Your task to perform on an android device: open device folders in google photos Image 0: 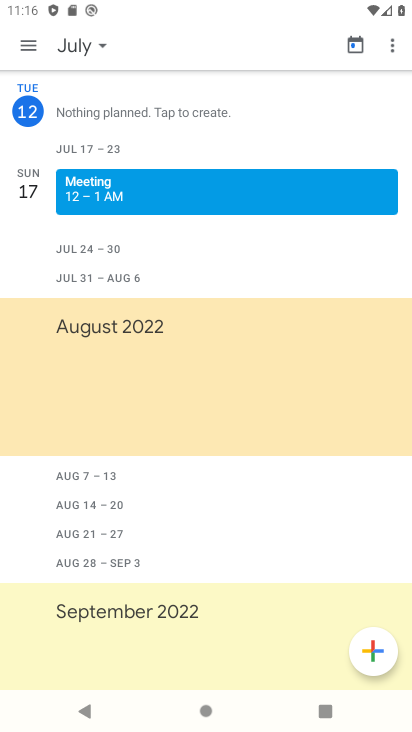
Step 0: press home button
Your task to perform on an android device: open device folders in google photos Image 1: 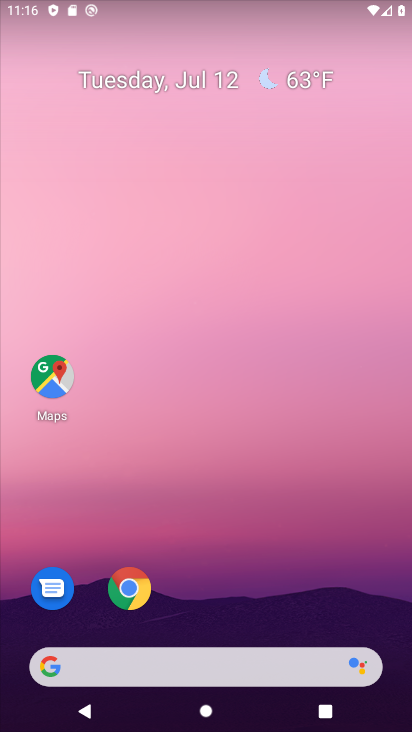
Step 1: drag from (20, 709) to (392, 277)
Your task to perform on an android device: open device folders in google photos Image 2: 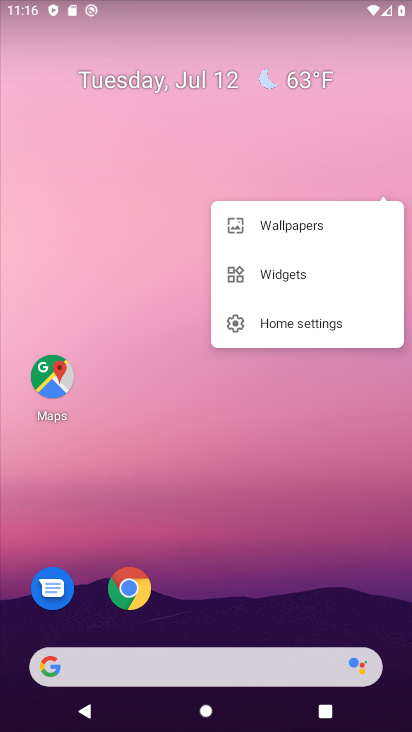
Step 2: drag from (33, 700) to (218, 34)
Your task to perform on an android device: open device folders in google photos Image 3: 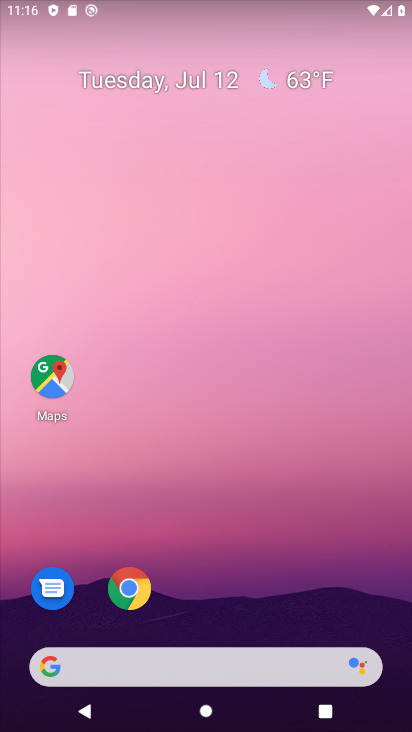
Step 3: drag from (76, 571) to (232, 12)
Your task to perform on an android device: open device folders in google photos Image 4: 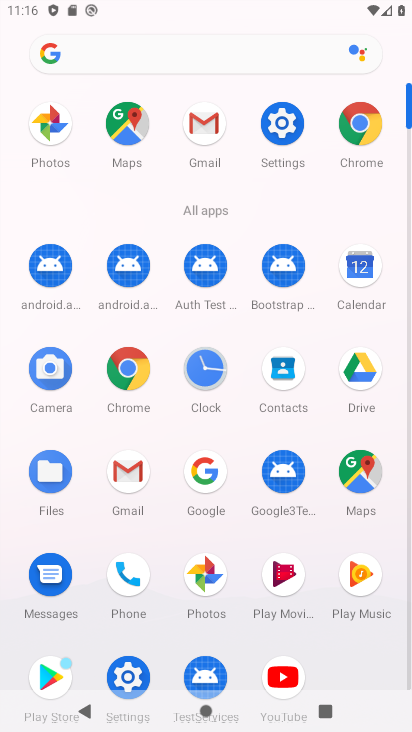
Step 4: click (211, 585)
Your task to perform on an android device: open device folders in google photos Image 5: 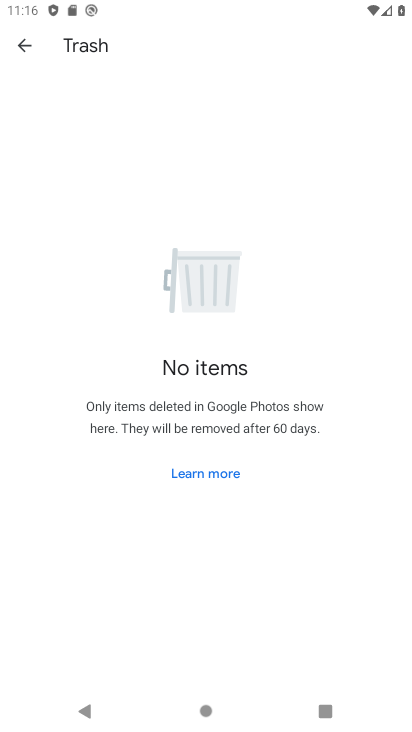
Step 5: click (24, 51)
Your task to perform on an android device: open device folders in google photos Image 6: 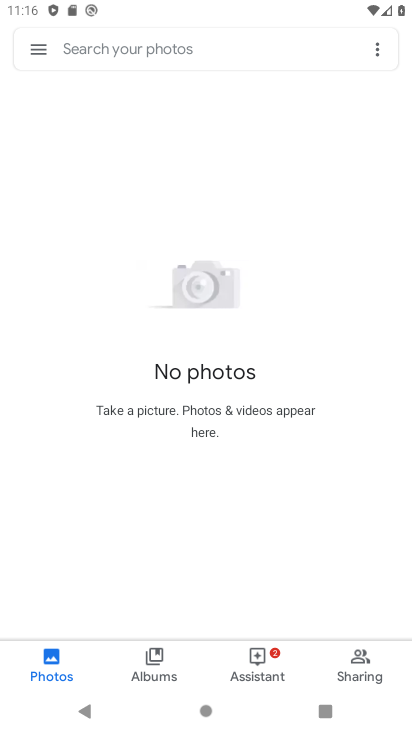
Step 6: click (31, 49)
Your task to perform on an android device: open device folders in google photos Image 7: 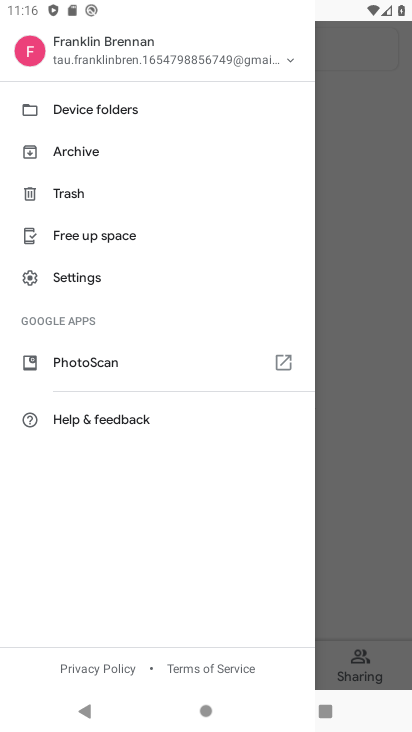
Step 7: click (145, 115)
Your task to perform on an android device: open device folders in google photos Image 8: 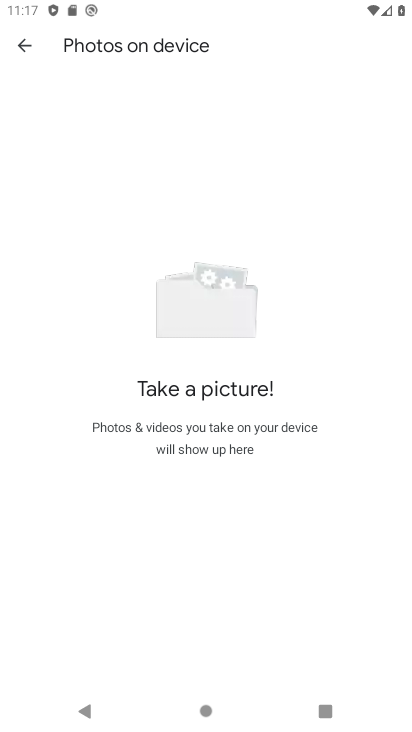
Step 8: task complete